Your task to perform on an android device: open a bookmark in the chrome app Image 0: 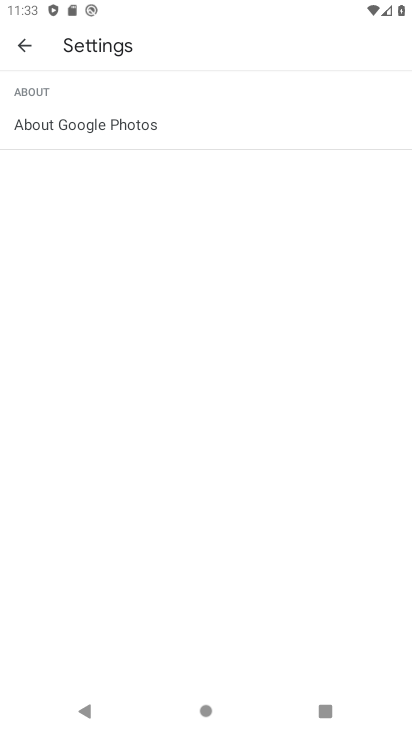
Step 0: click (28, 41)
Your task to perform on an android device: open a bookmark in the chrome app Image 1: 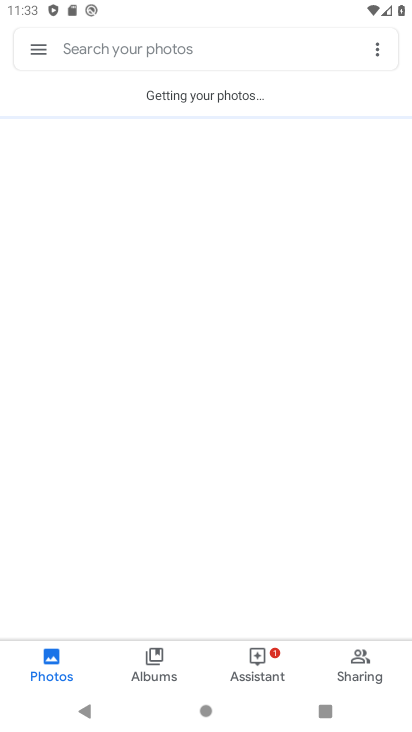
Step 1: press back button
Your task to perform on an android device: open a bookmark in the chrome app Image 2: 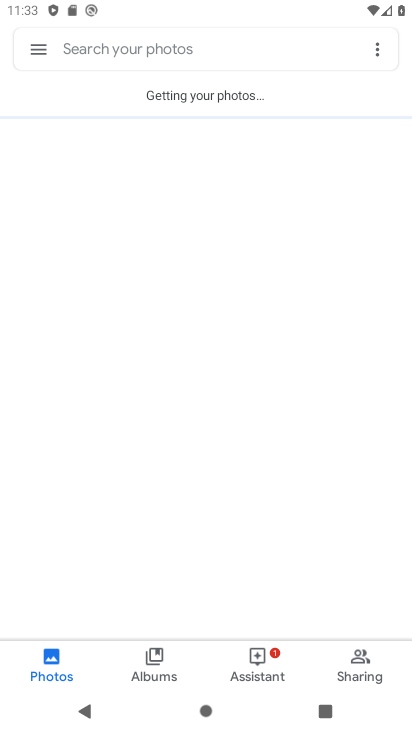
Step 2: press back button
Your task to perform on an android device: open a bookmark in the chrome app Image 3: 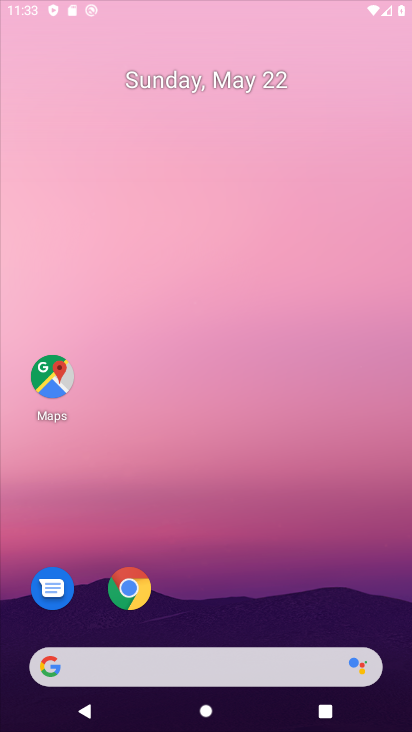
Step 3: press back button
Your task to perform on an android device: open a bookmark in the chrome app Image 4: 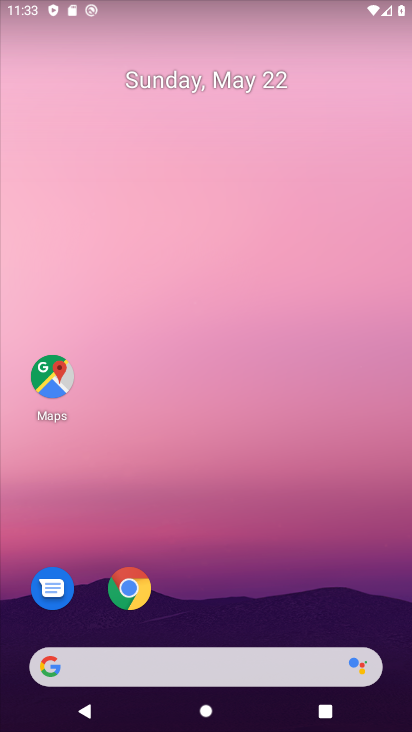
Step 4: drag from (231, 489) to (176, 77)
Your task to perform on an android device: open a bookmark in the chrome app Image 5: 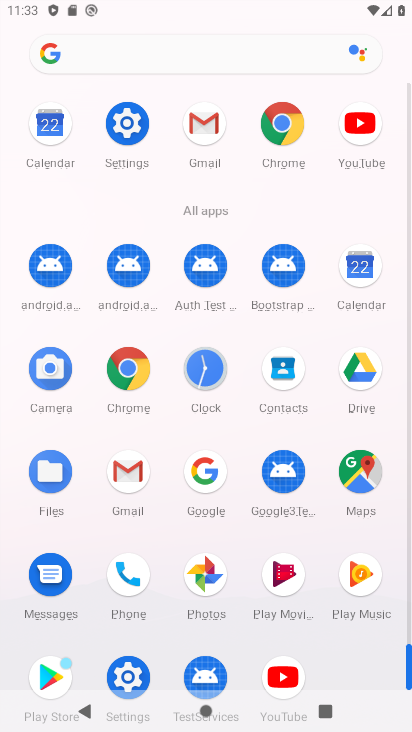
Step 5: click (274, 136)
Your task to perform on an android device: open a bookmark in the chrome app Image 6: 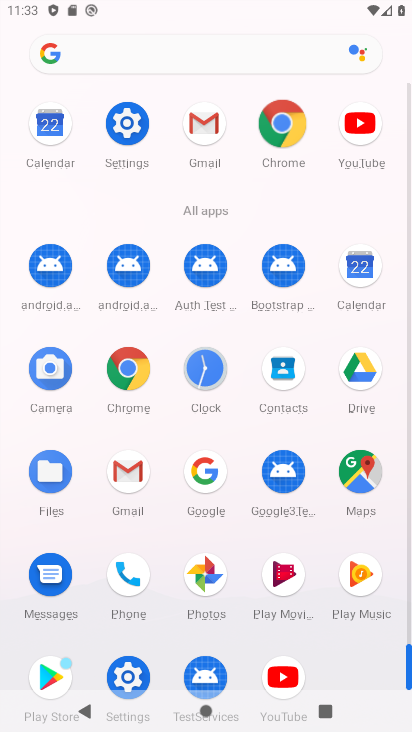
Step 6: click (272, 136)
Your task to perform on an android device: open a bookmark in the chrome app Image 7: 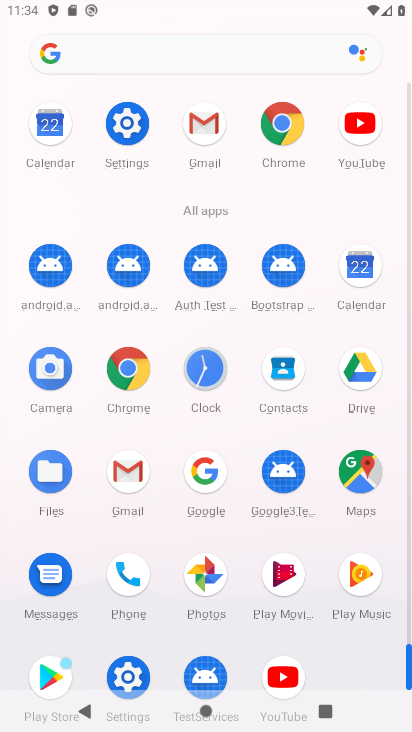
Step 7: click (284, 127)
Your task to perform on an android device: open a bookmark in the chrome app Image 8: 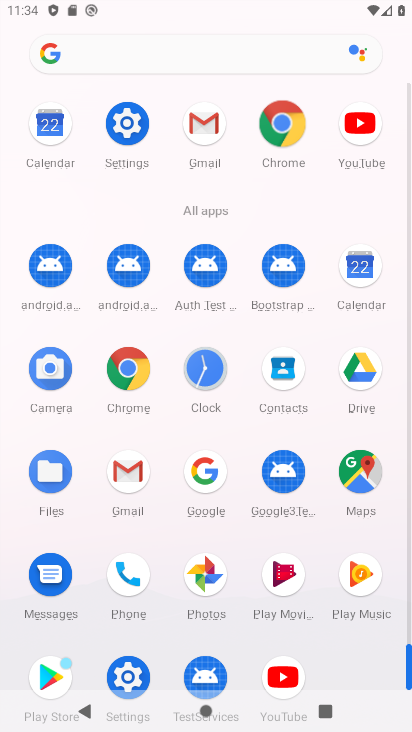
Step 8: click (283, 129)
Your task to perform on an android device: open a bookmark in the chrome app Image 9: 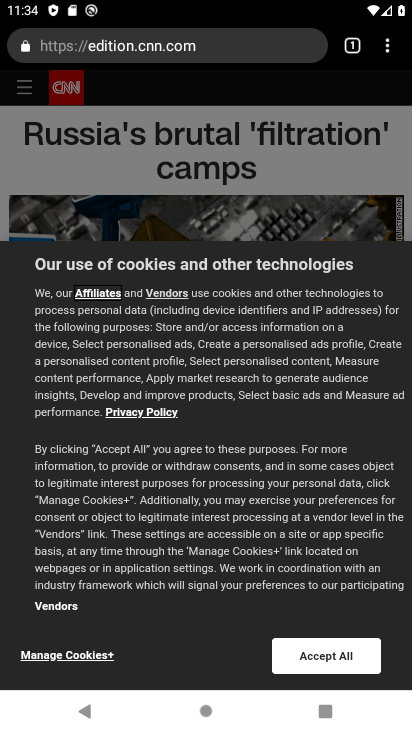
Step 9: click (387, 54)
Your task to perform on an android device: open a bookmark in the chrome app Image 10: 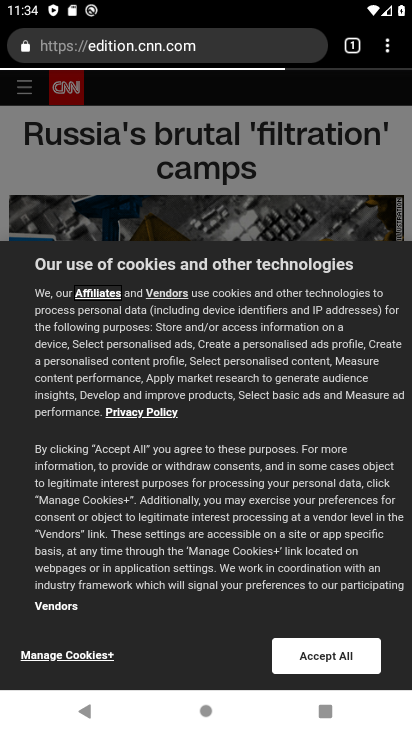
Step 10: click (387, 54)
Your task to perform on an android device: open a bookmark in the chrome app Image 11: 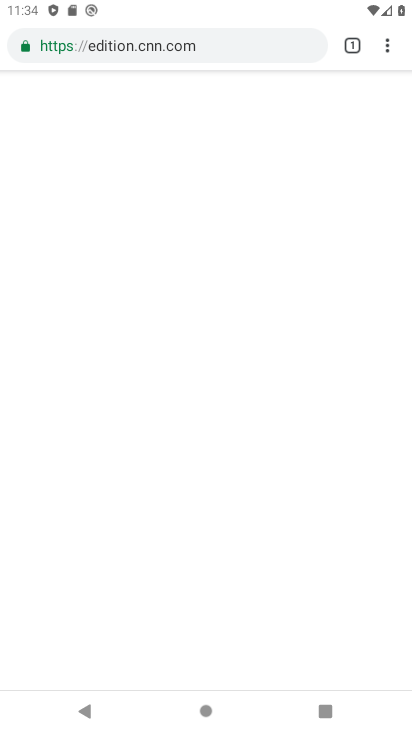
Step 11: click (387, 54)
Your task to perform on an android device: open a bookmark in the chrome app Image 12: 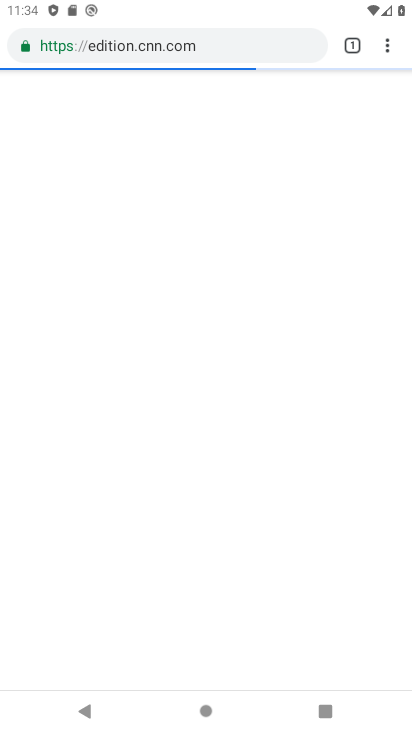
Step 12: click (387, 54)
Your task to perform on an android device: open a bookmark in the chrome app Image 13: 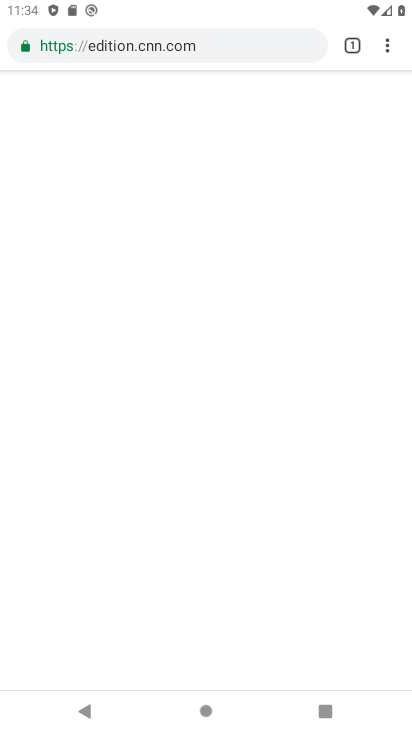
Step 13: click (387, 54)
Your task to perform on an android device: open a bookmark in the chrome app Image 14: 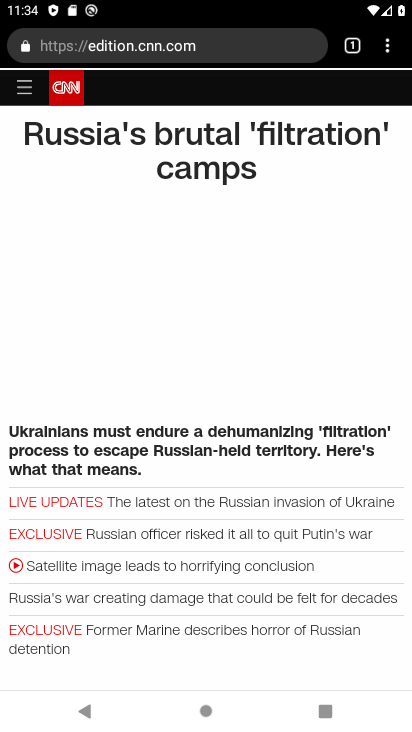
Step 14: click (387, 54)
Your task to perform on an android device: open a bookmark in the chrome app Image 15: 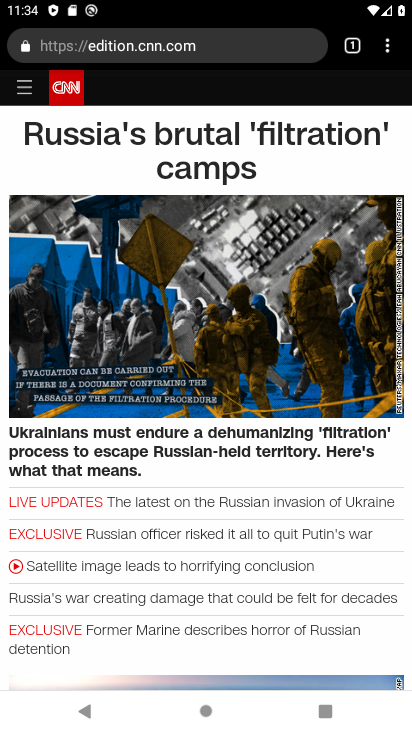
Step 15: click (381, 38)
Your task to perform on an android device: open a bookmark in the chrome app Image 16: 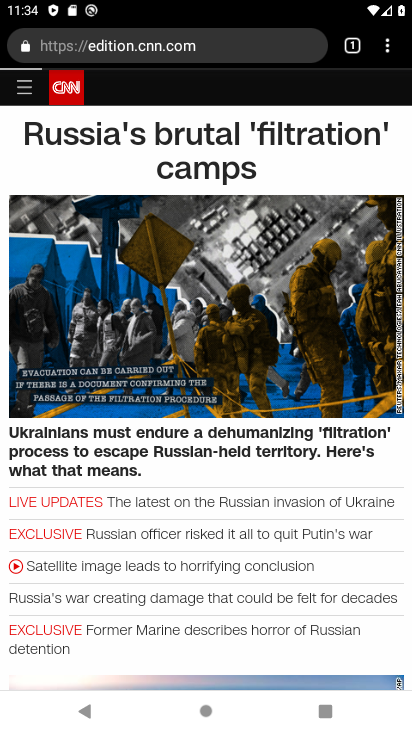
Step 16: drag from (392, 48) to (299, 434)
Your task to perform on an android device: open a bookmark in the chrome app Image 17: 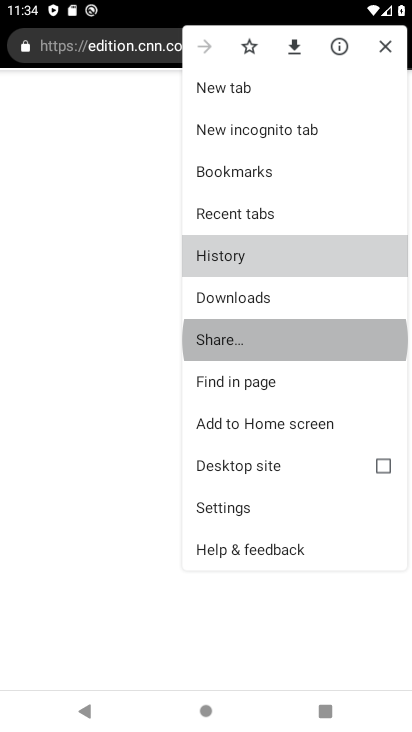
Step 17: click (274, 403)
Your task to perform on an android device: open a bookmark in the chrome app Image 18: 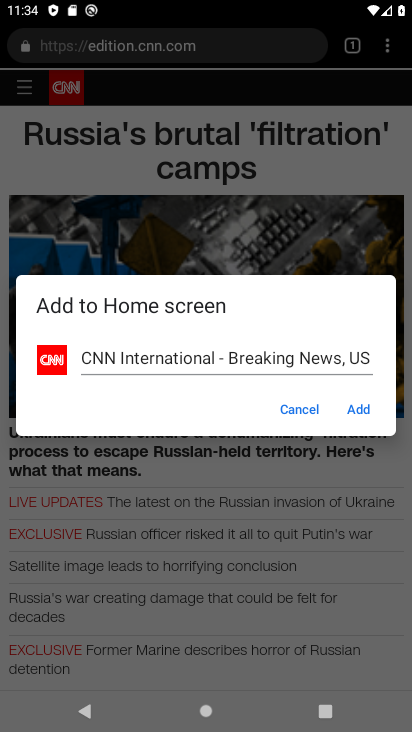
Step 18: click (299, 408)
Your task to perform on an android device: open a bookmark in the chrome app Image 19: 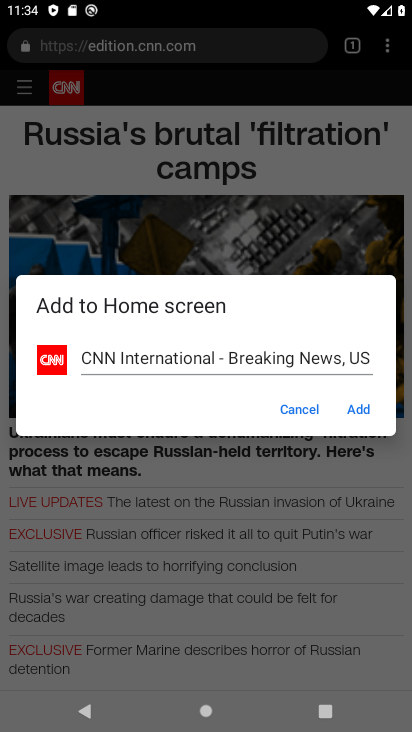
Step 19: click (299, 408)
Your task to perform on an android device: open a bookmark in the chrome app Image 20: 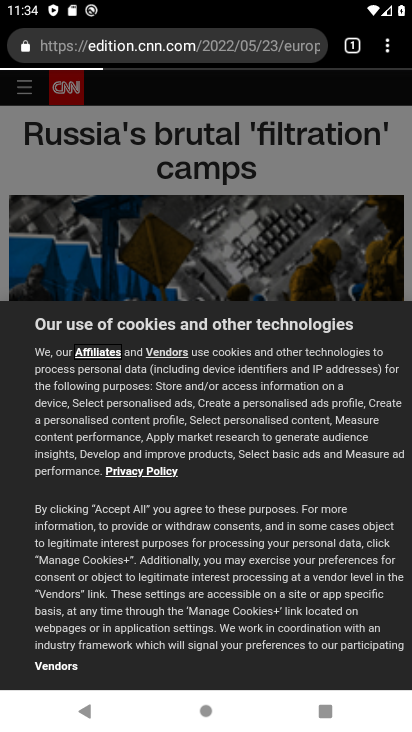
Step 20: drag from (387, 42) to (235, 164)
Your task to perform on an android device: open a bookmark in the chrome app Image 21: 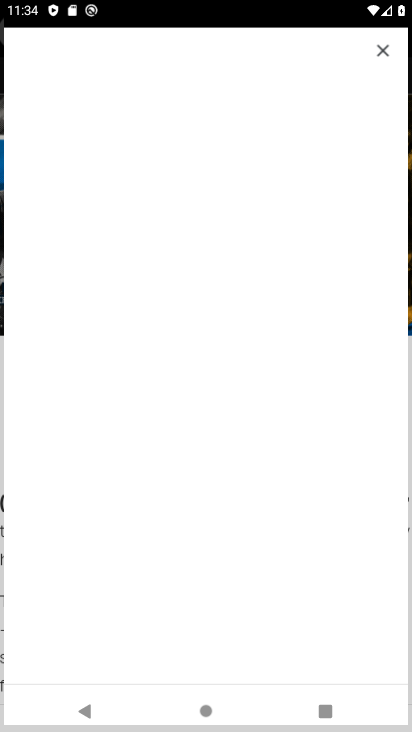
Step 21: click (232, 175)
Your task to perform on an android device: open a bookmark in the chrome app Image 22: 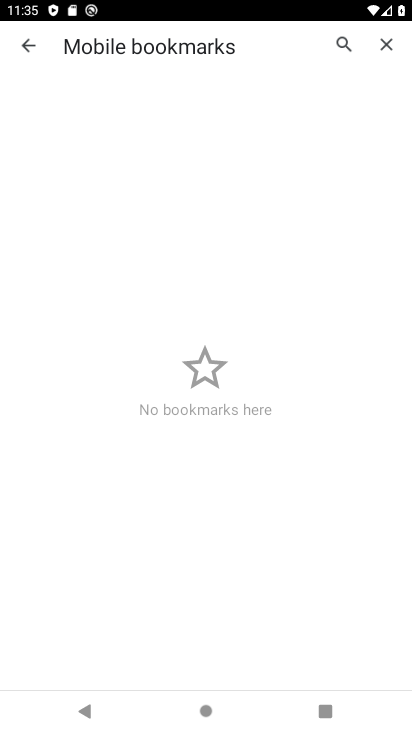
Step 22: task complete